Your task to perform on an android device: Toggle the flashlight Image 0: 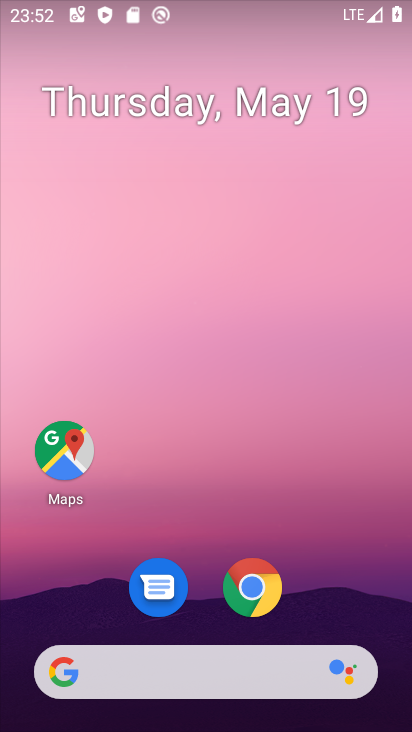
Step 0: drag from (192, 633) to (171, 143)
Your task to perform on an android device: Toggle the flashlight Image 1: 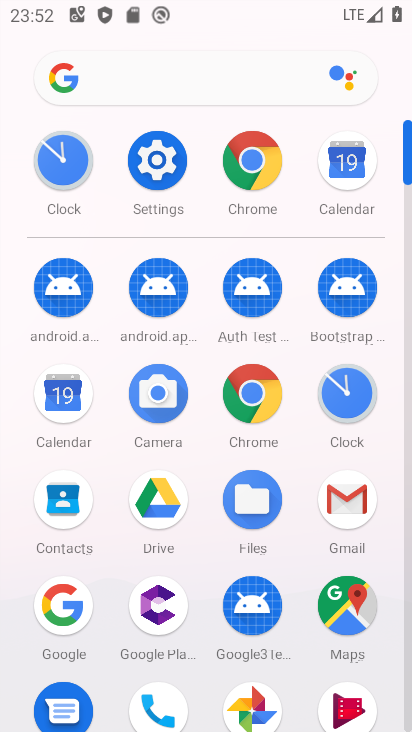
Step 1: click (158, 169)
Your task to perform on an android device: Toggle the flashlight Image 2: 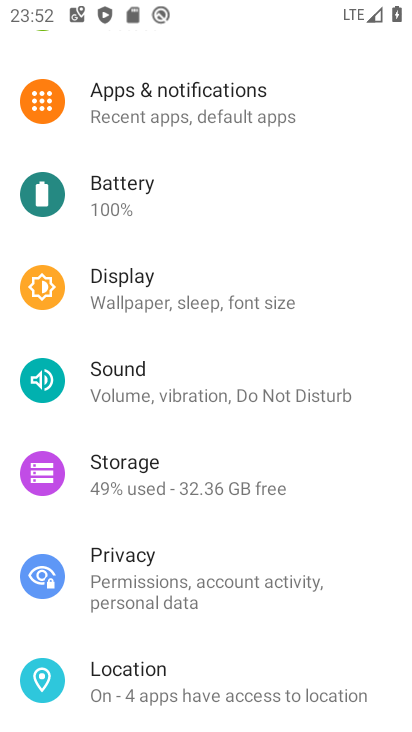
Step 2: drag from (131, 112) to (179, 258)
Your task to perform on an android device: Toggle the flashlight Image 3: 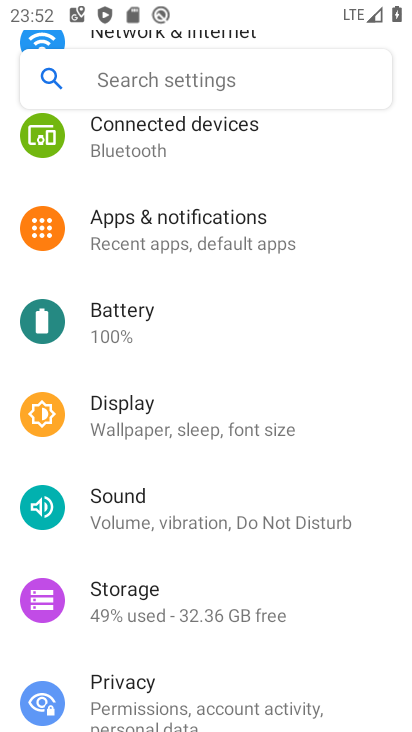
Step 3: click (153, 79)
Your task to perform on an android device: Toggle the flashlight Image 4: 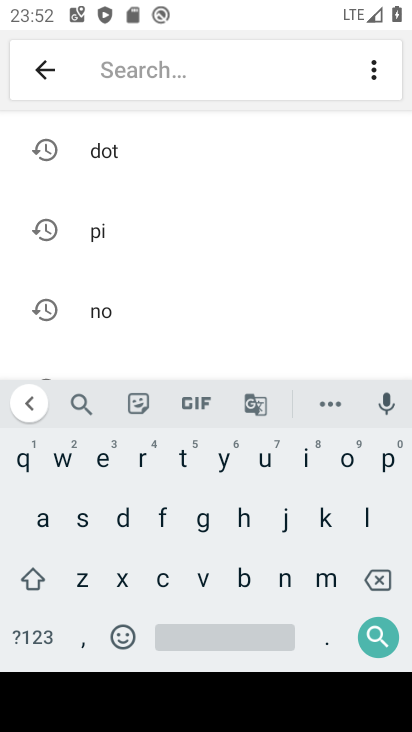
Step 4: click (169, 523)
Your task to perform on an android device: Toggle the flashlight Image 5: 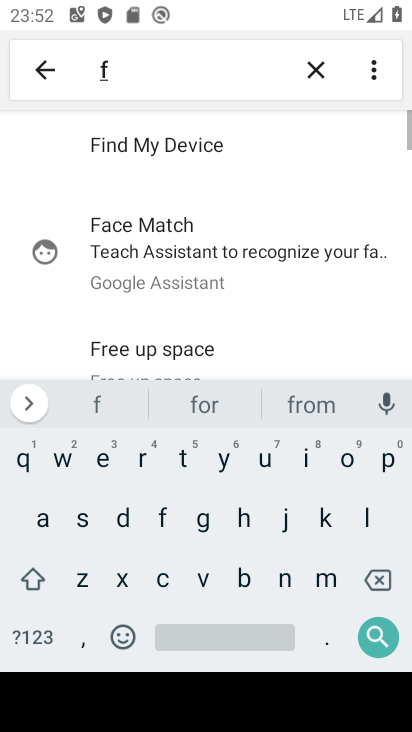
Step 5: click (365, 518)
Your task to perform on an android device: Toggle the flashlight Image 6: 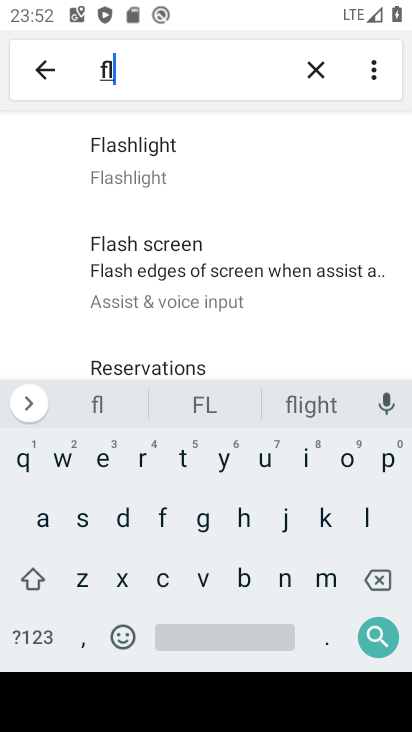
Step 6: click (191, 152)
Your task to perform on an android device: Toggle the flashlight Image 7: 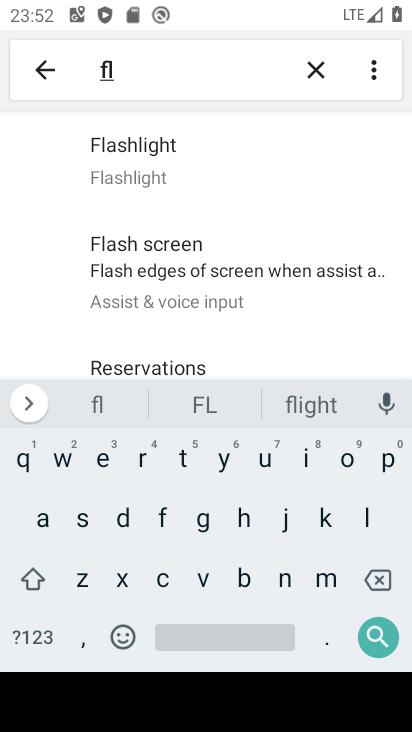
Step 7: click (183, 181)
Your task to perform on an android device: Toggle the flashlight Image 8: 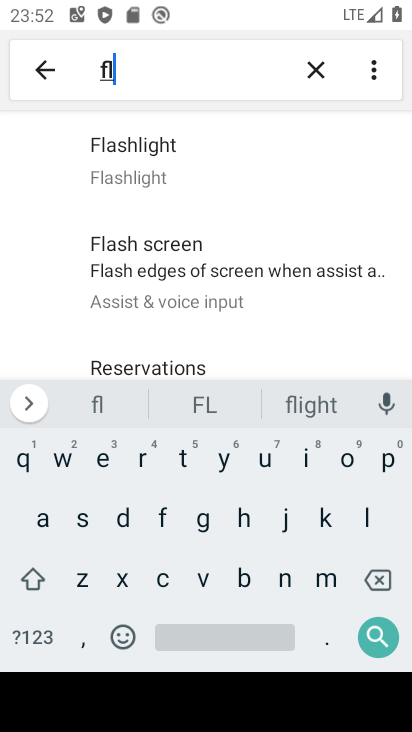
Step 8: task complete